Your task to perform on an android device: Go to Maps Image 0: 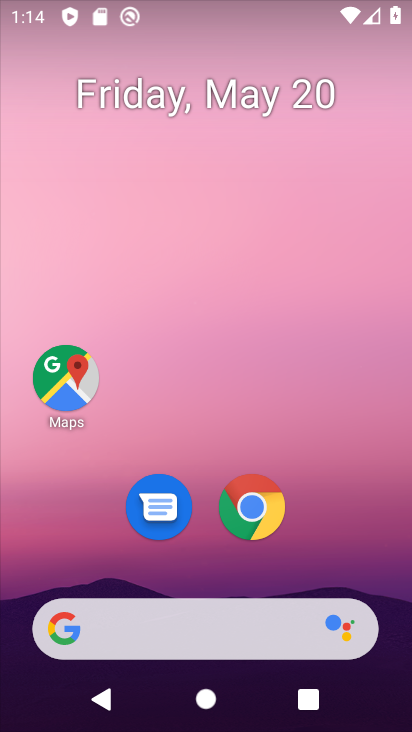
Step 0: drag from (252, 606) to (252, 9)
Your task to perform on an android device: Go to Maps Image 1: 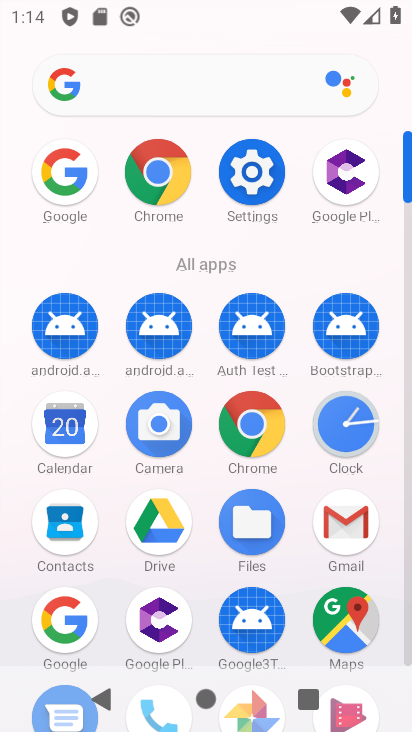
Step 1: click (355, 637)
Your task to perform on an android device: Go to Maps Image 2: 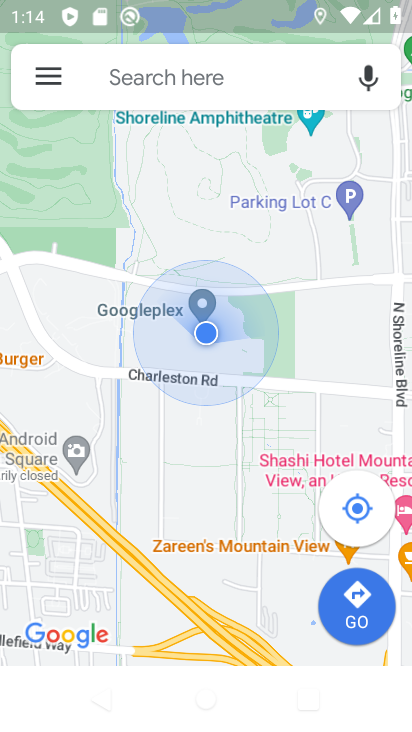
Step 2: task complete